Your task to perform on an android device: Check the news Image 0: 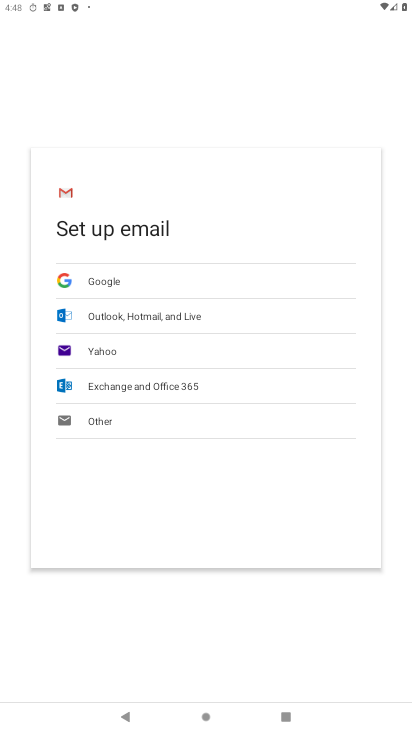
Step 0: press home button
Your task to perform on an android device: Check the news Image 1: 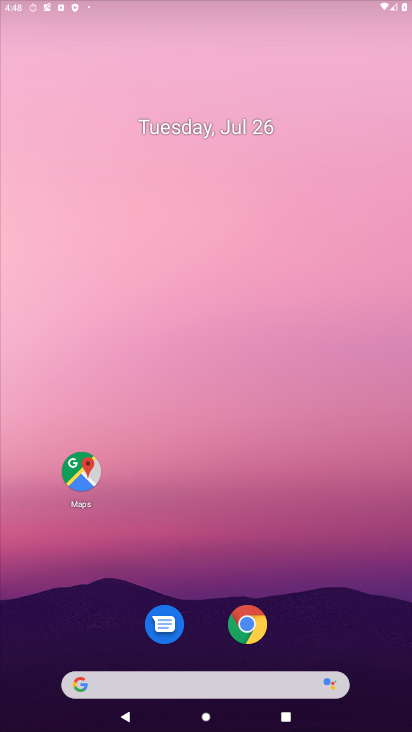
Step 1: drag from (198, 702) to (279, 67)
Your task to perform on an android device: Check the news Image 2: 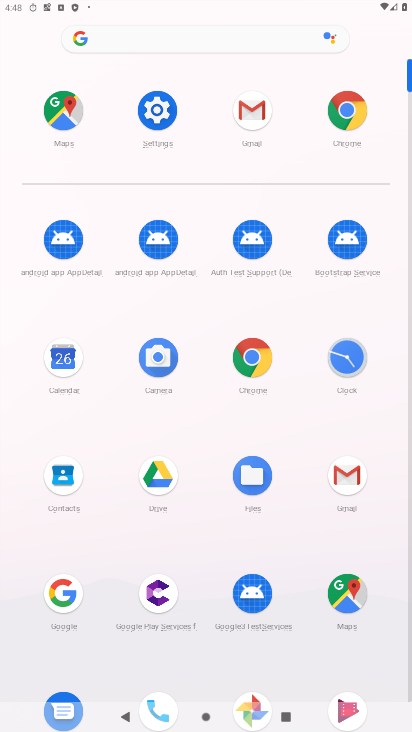
Step 2: click (254, 362)
Your task to perform on an android device: Check the news Image 3: 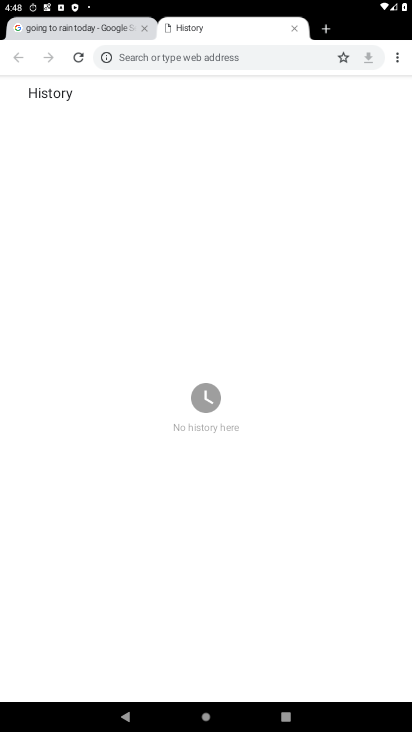
Step 3: click (299, 60)
Your task to perform on an android device: Check the news Image 4: 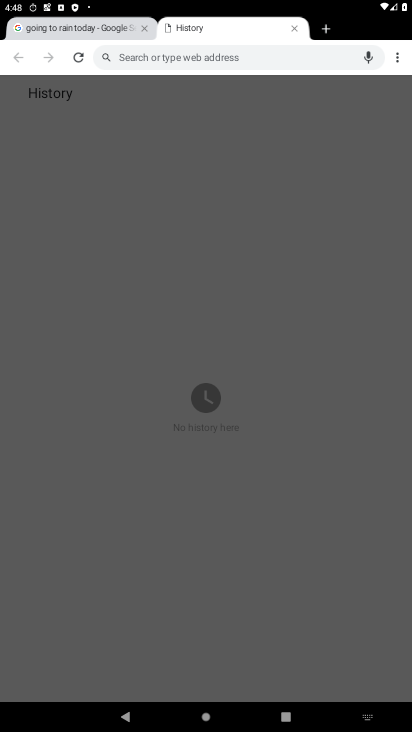
Step 4: type "check the news"
Your task to perform on an android device: Check the news Image 5: 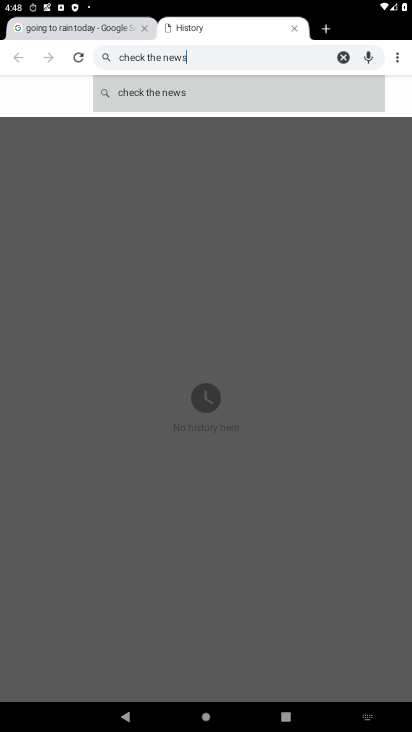
Step 5: click (181, 86)
Your task to perform on an android device: Check the news Image 6: 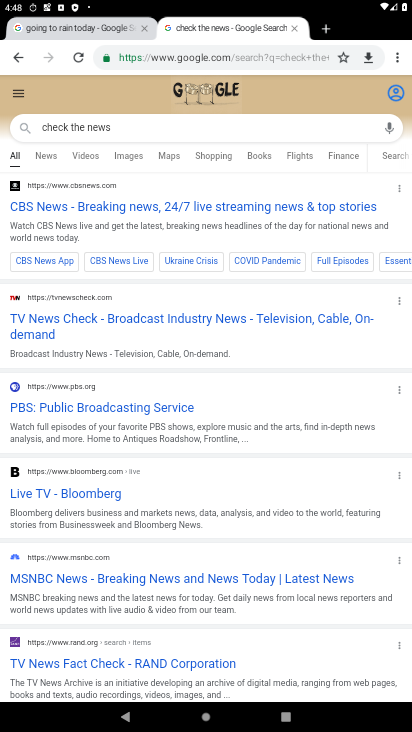
Step 6: task complete